Your task to perform on an android device: toggle improve location accuracy Image 0: 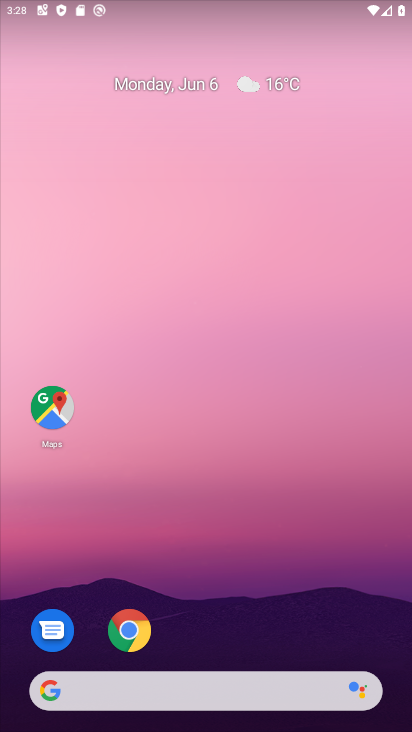
Step 0: drag from (213, 598) to (275, 162)
Your task to perform on an android device: toggle improve location accuracy Image 1: 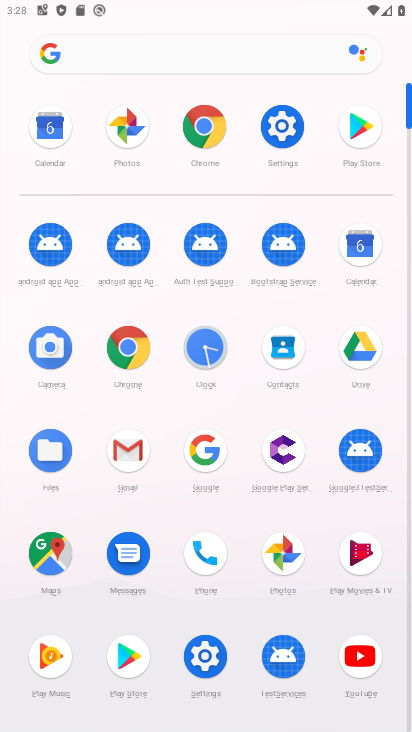
Step 1: click (278, 117)
Your task to perform on an android device: toggle improve location accuracy Image 2: 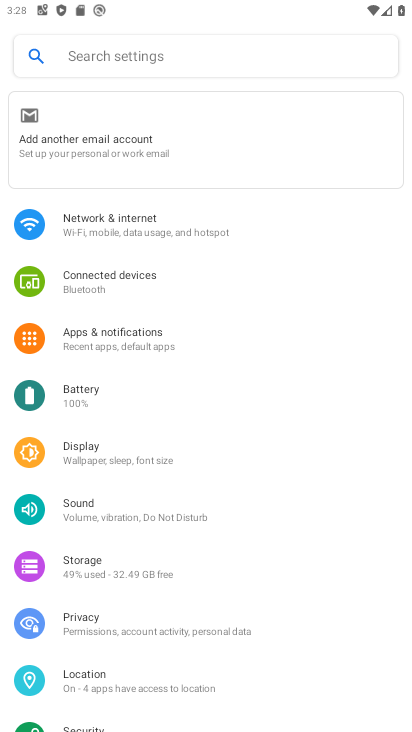
Step 2: click (95, 673)
Your task to perform on an android device: toggle improve location accuracy Image 3: 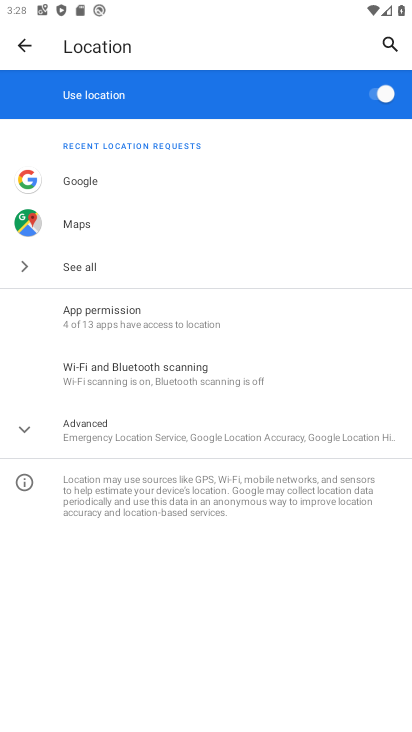
Step 3: click (156, 441)
Your task to perform on an android device: toggle improve location accuracy Image 4: 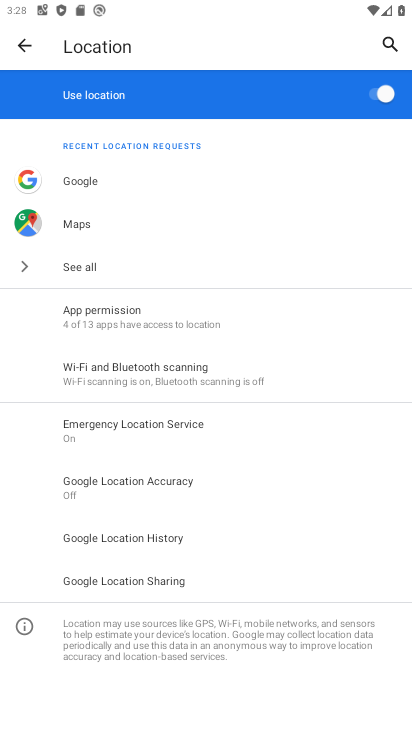
Step 4: click (150, 473)
Your task to perform on an android device: toggle improve location accuracy Image 5: 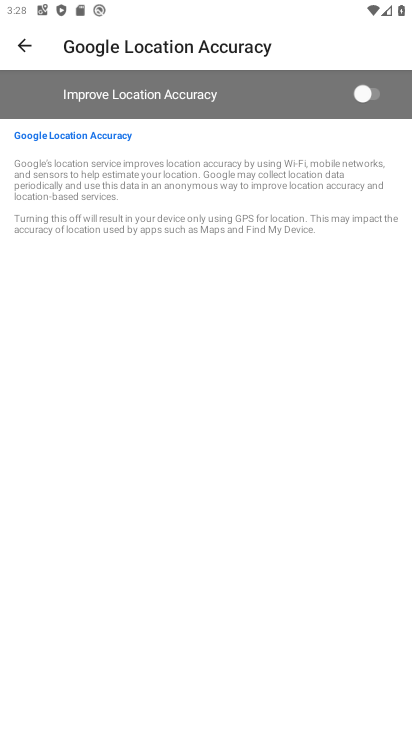
Step 5: click (360, 88)
Your task to perform on an android device: toggle improve location accuracy Image 6: 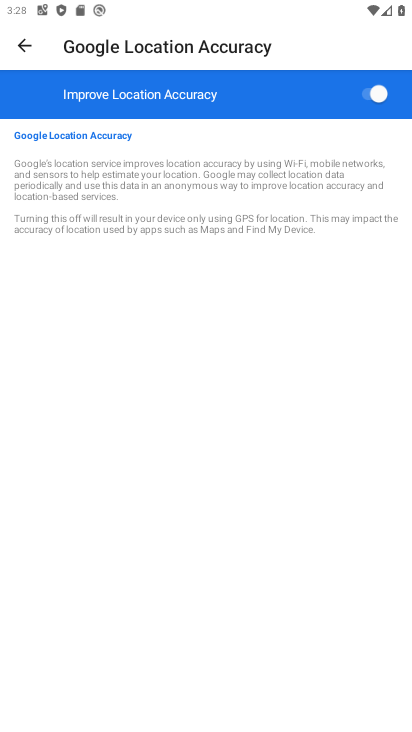
Step 6: task complete